Your task to perform on an android device: Open the map Image 0: 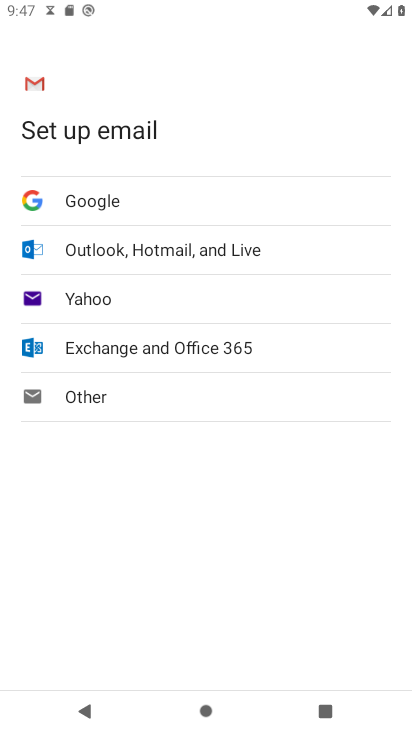
Step 0: press home button
Your task to perform on an android device: Open the map Image 1: 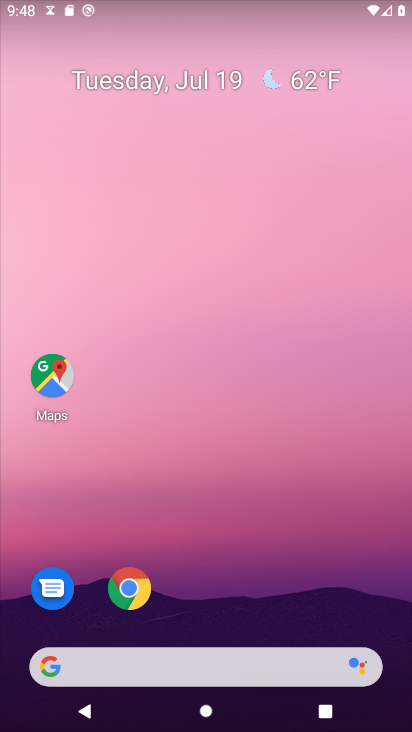
Step 1: click (54, 375)
Your task to perform on an android device: Open the map Image 2: 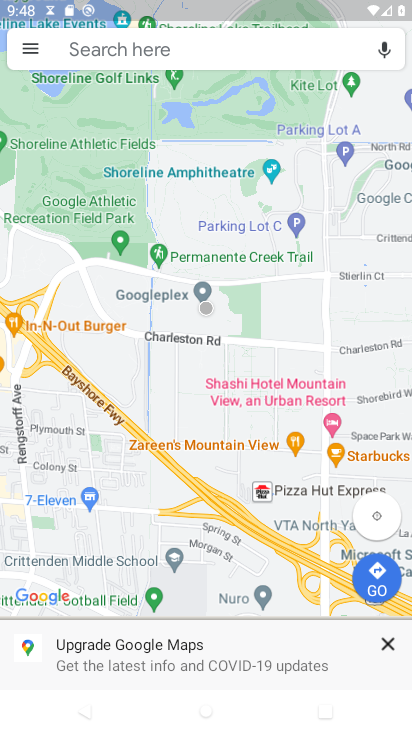
Step 2: task complete